Your task to perform on an android device: turn on javascript in the chrome app Image 0: 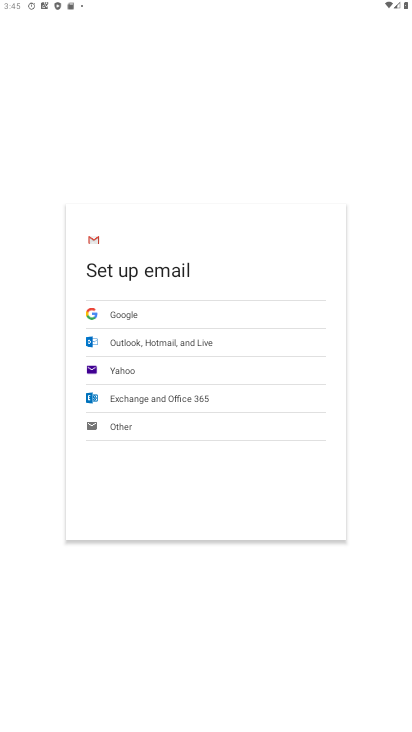
Step 0: press home button
Your task to perform on an android device: turn on javascript in the chrome app Image 1: 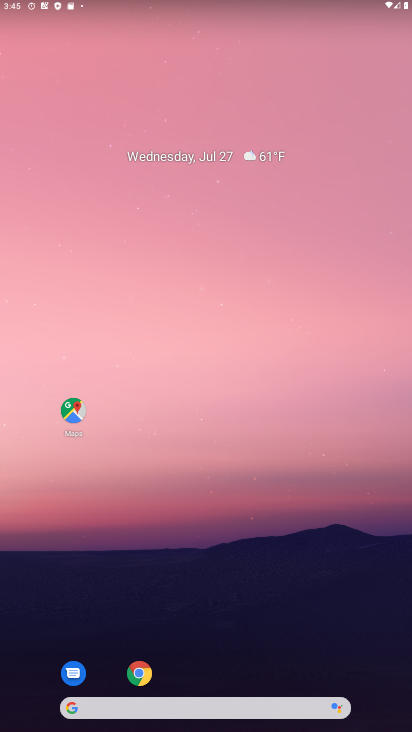
Step 1: click (140, 675)
Your task to perform on an android device: turn on javascript in the chrome app Image 2: 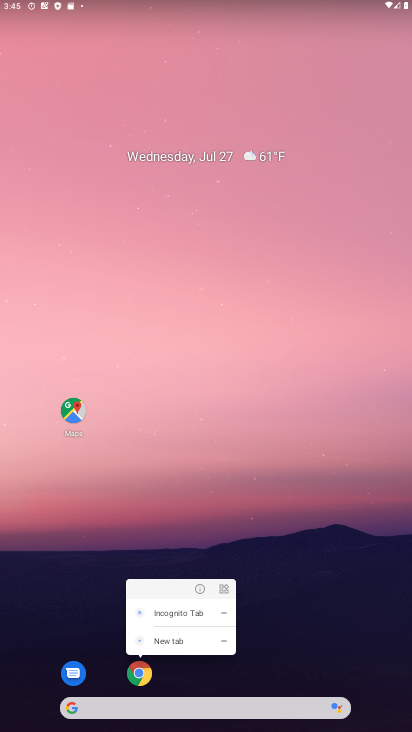
Step 2: click (141, 675)
Your task to perform on an android device: turn on javascript in the chrome app Image 3: 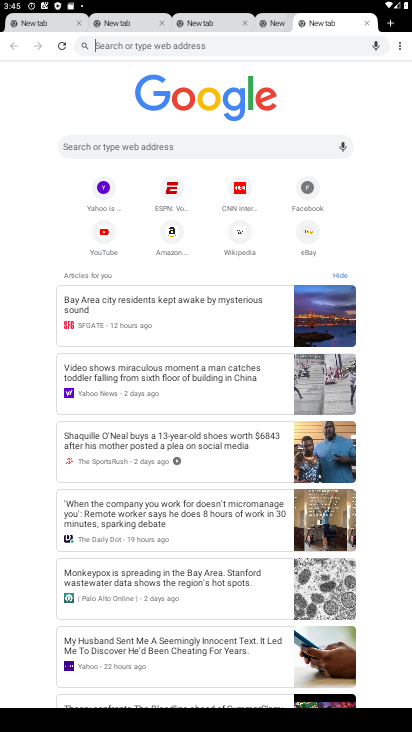
Step 3: click (403, 50)
Your task to perform on an android device: turn on javascript in the chrome app Image 4: 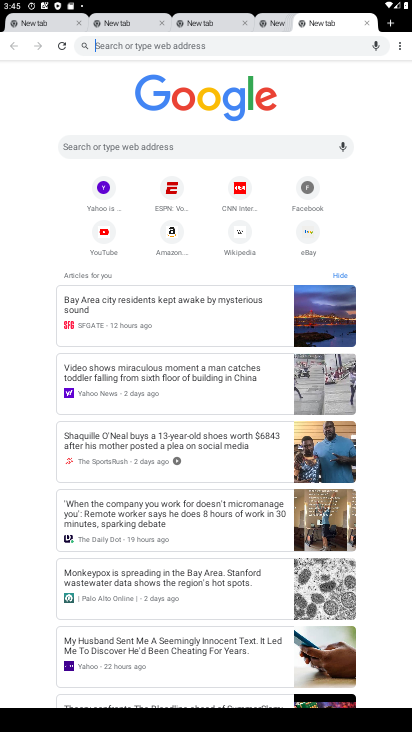
Step 4: click (403, 41)
Your task to perform on an android device: turn on javascript in the chrome app Image 5: 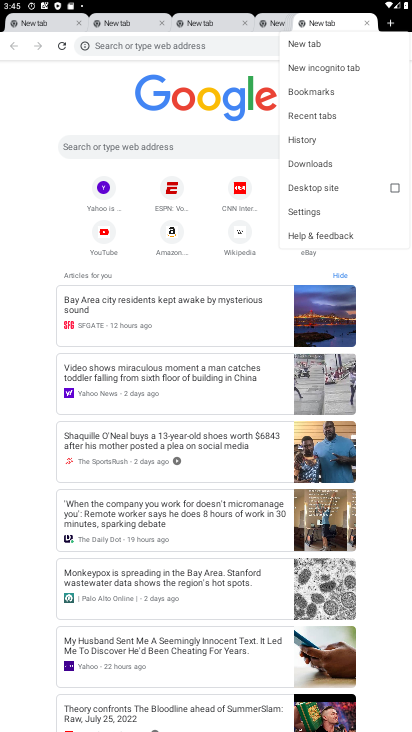
Step 5: click (322, 207)
Your task to perform on an android device: turn on javascript in the chrome app Image 6: 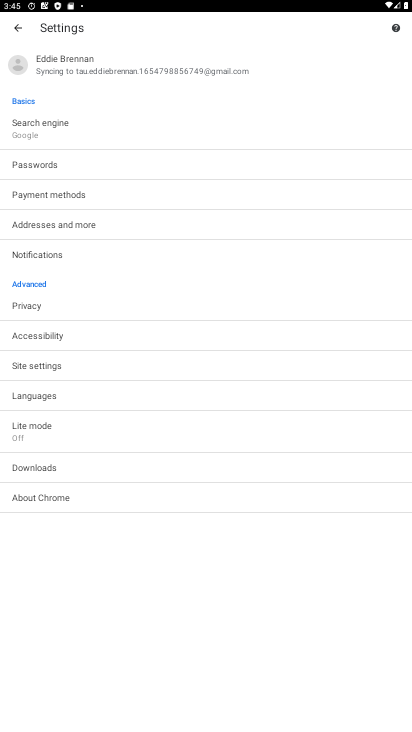
Step 6: click (30, 365)
Your task to perform on an android device: turn on javascript in the chrome app Image 7: 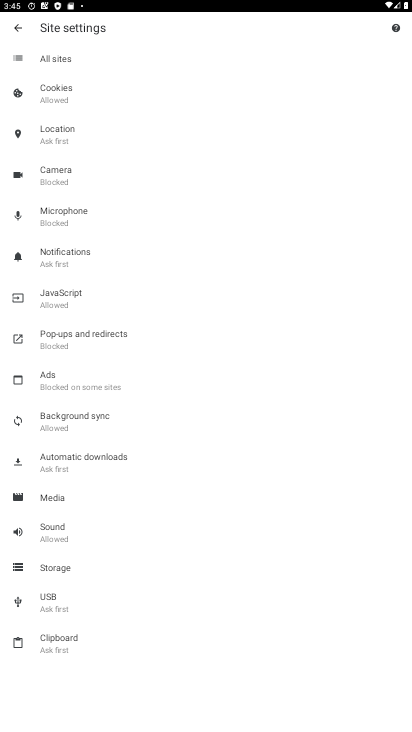
Step 7: click (62, 297)
Your task to perform on an android device: turn on javascript in the chrome app Image 8: 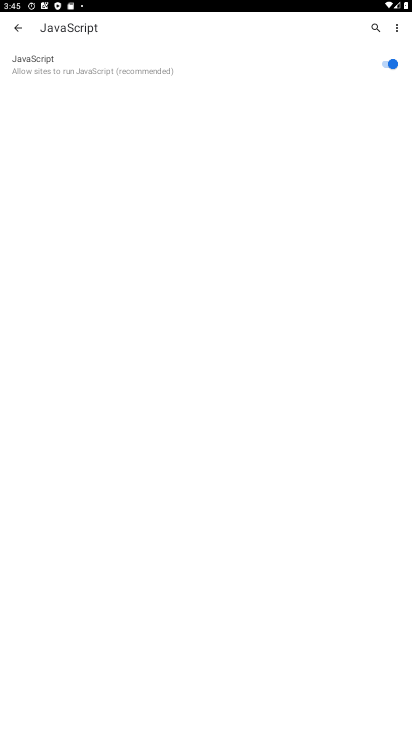
Step 8: task complete